Your task to perform on an android device: Search for Mexican restaurants on Maps Image 0: 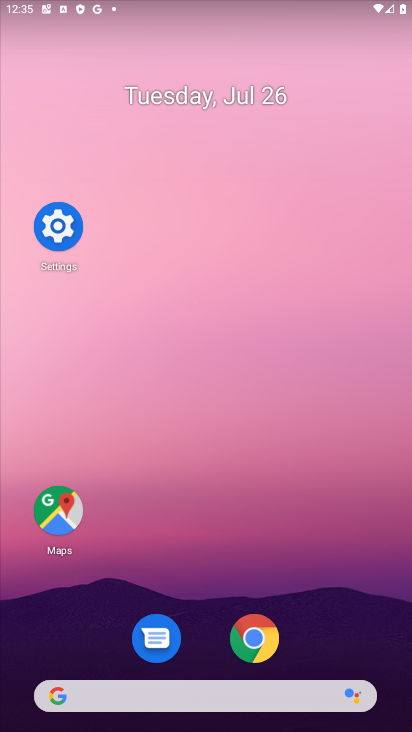
Step 0: click (50, 502)
Your task to perform on an android device: Search for Mexican restaurants on Maps Image 1: 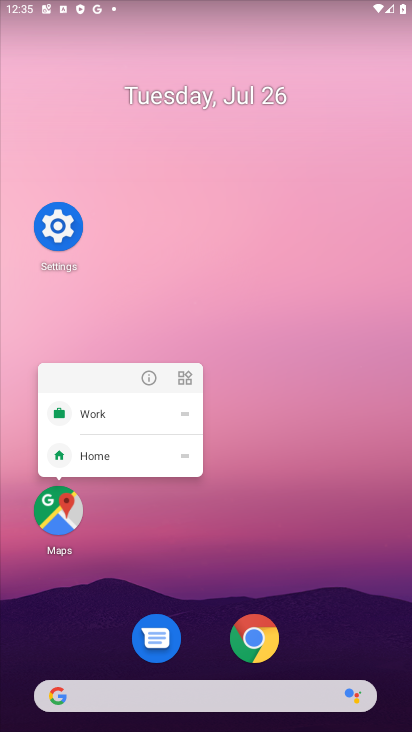
Step 1: click (59, 510)
Your task to perform on an android device: Search for Mexican restaurants on Maps Image 2: 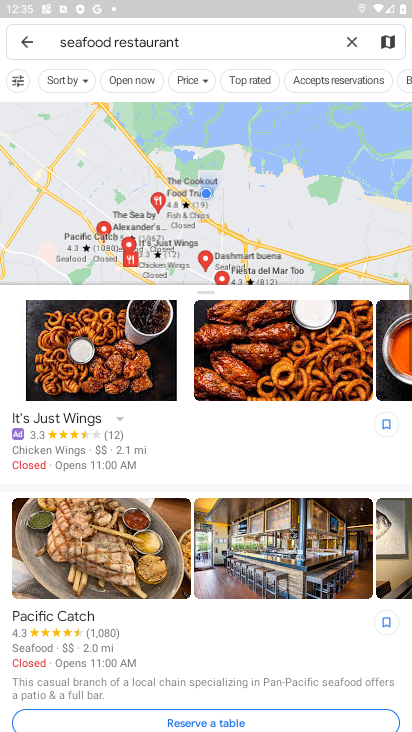
Step 2: click (353, 38)
Your task to perform on an android device: Search for Mexican restaurants on Maps Image 3: 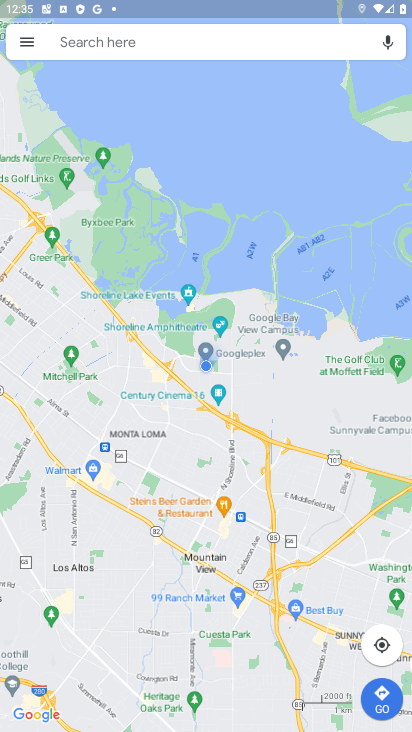
Step 3: click (184, 42)
Your task to perform on an android device: Search for Mexican restaurants on Maps Image 4: 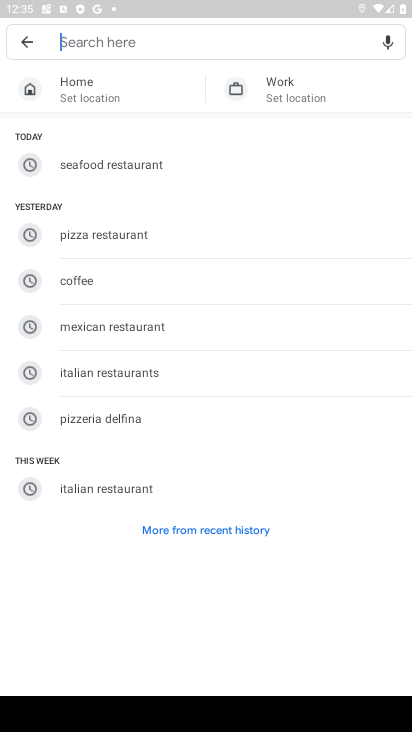
Step 4: click (184, 327)
Your task to perform on an android device: Search for Mexican restaurants on Maps Image 5: 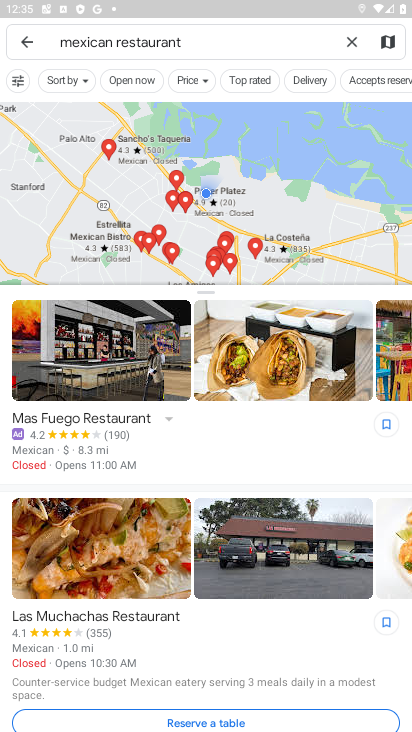
Step 5: task complete